Your task to perform on an android device: all mails in gmail Image 0: 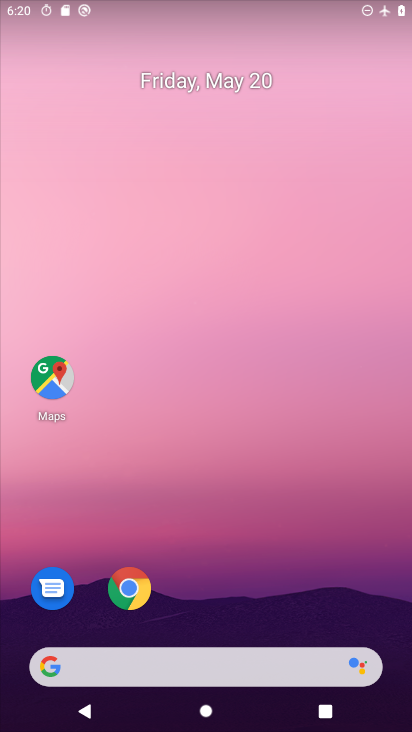
Step 0: drag from (217, 613) to (226, 208)
Your task to perform on an android device: all mails in gmail Image 1: 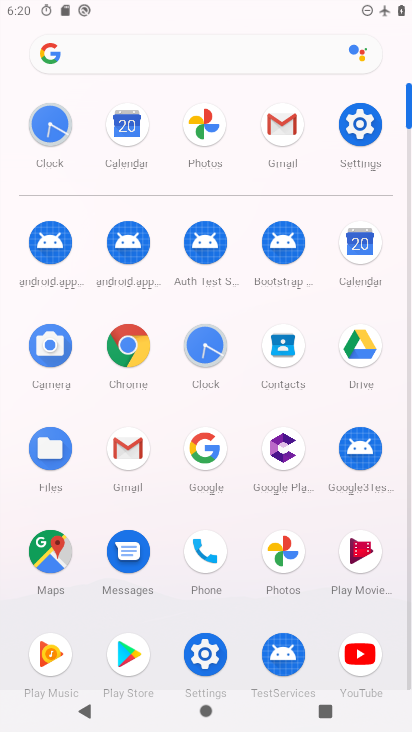
Step 1: click (283, 142)
Your task to perform on an android device: all mails in gmail Image 2: 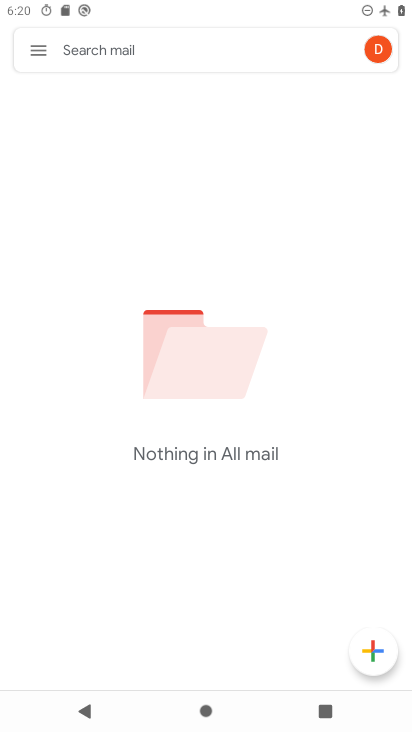
Step 2: task complete